Your task to perform on an android device: delete browsing data in the chrome app Image 0: 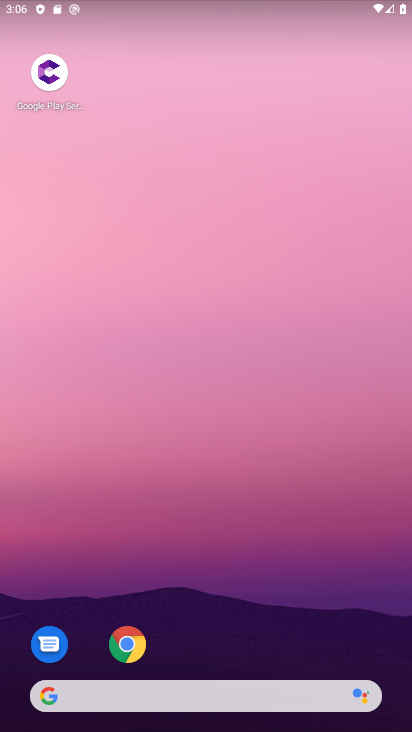
Step 0: click (126, 641)
Your task to perform on an android device: delete browsing data in the chrome app Image 1: 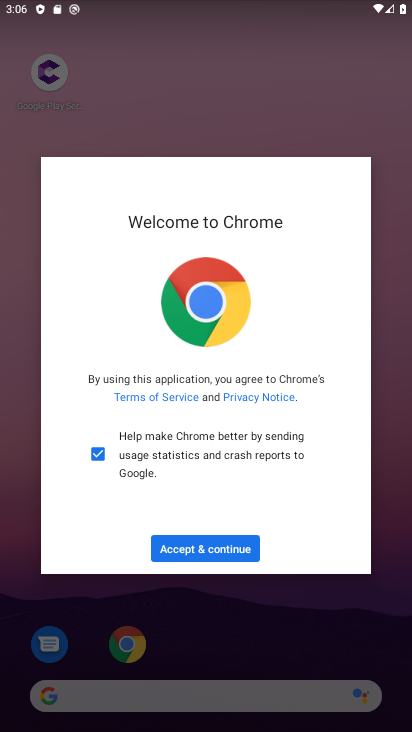
Step 1: click (194, 540)
Your task to perform on an android device: delete browsing data in the chrome app Image 2: 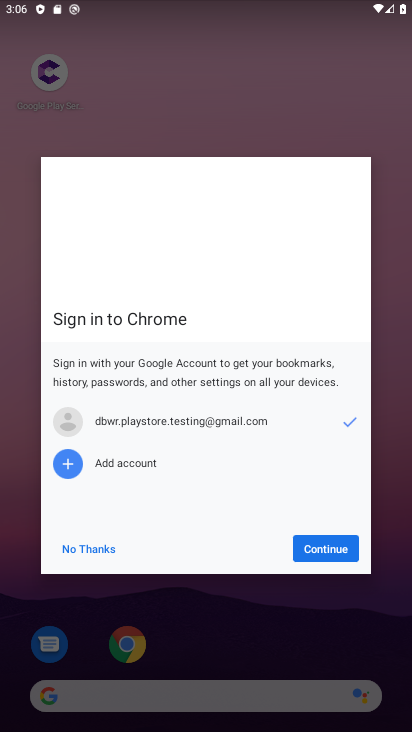
Step 2: click (319, 543)
Your task to perform on an android device: delete browsing data in the chrome app Image 3: 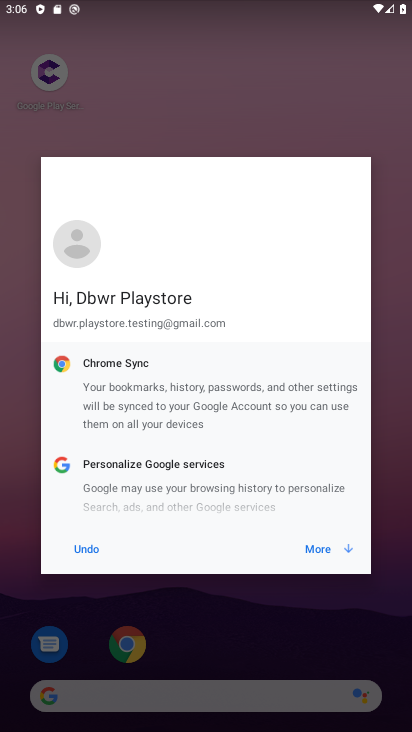
Step 3: click (319, 551)
Your task to perform on an android device: delete browsing data in the chrome app Image 4: 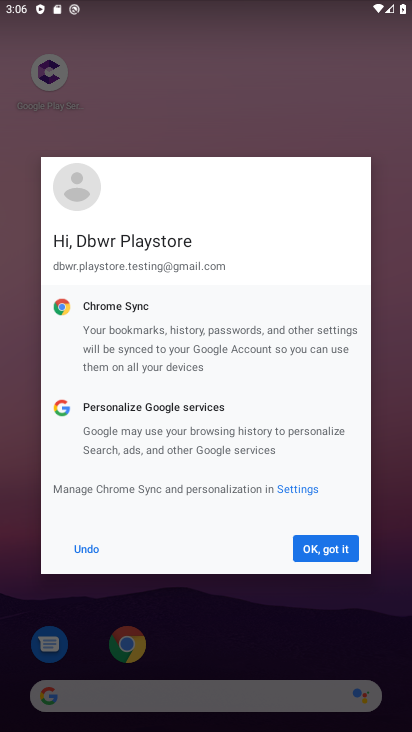
Step 4: click (319, 551)
Your task to perform on an android device: delete browsing data in the chrome app Image 5: 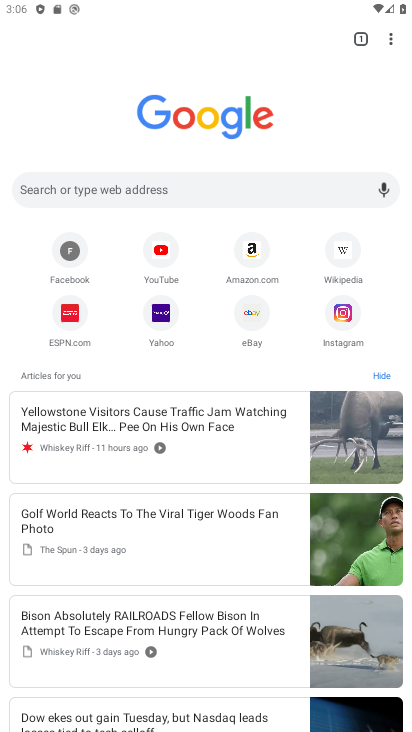
Step 5: click (390, 39)
Your task to perform on an android device: delete browsing data in the chrome app Image 6: 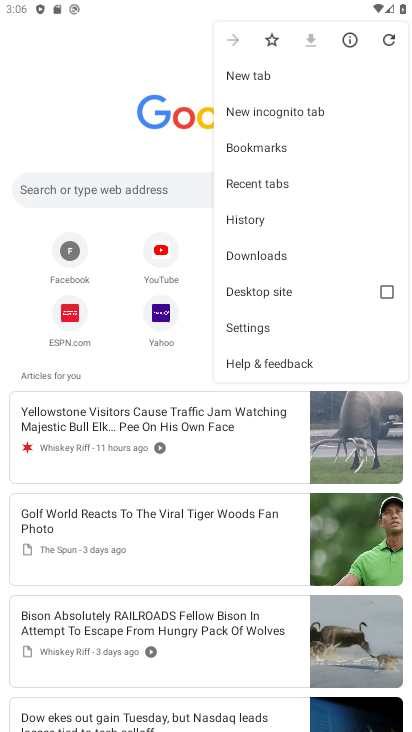
Step 6: click (244, 329)
Your task to perform on an android device: delete browsing data in the chrome app Image 7: 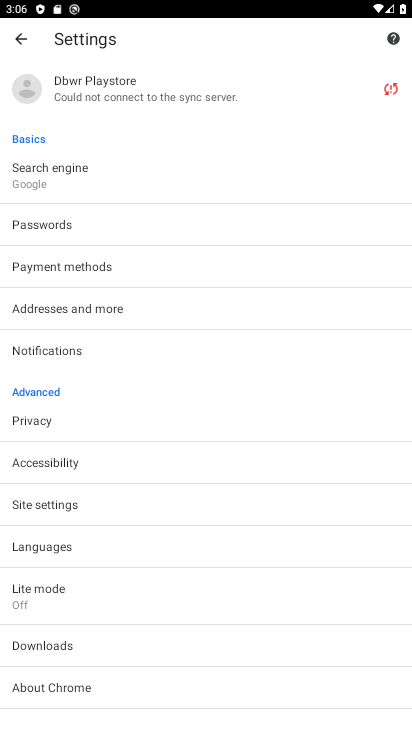
Step 7: click (34, 422)
Your task to perform on an android device: delete browsing data in the chrome app Image 8: 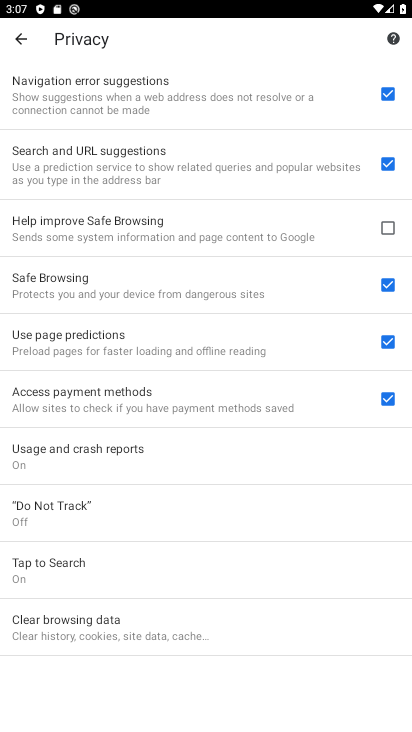
Step 8: click (66, 620)
Your task to perform on an android device: delete browsing data in the chrome app Image 9: 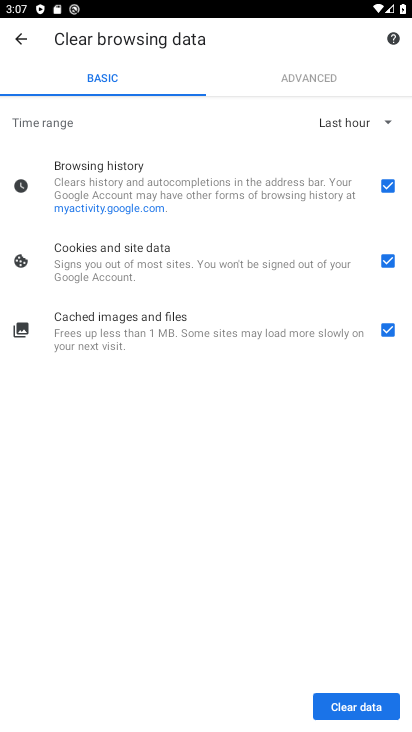
Step 9: click (382, 326)
Your task to perform on an android device: delete browsing data in the chrome app Image 10: 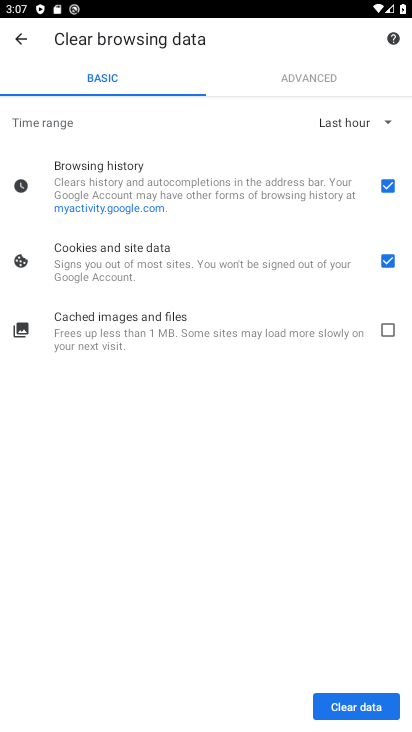
Step 10: click (385, 265)
Your task to perform on an android device: delete browsing data in the chrome app Image 11: 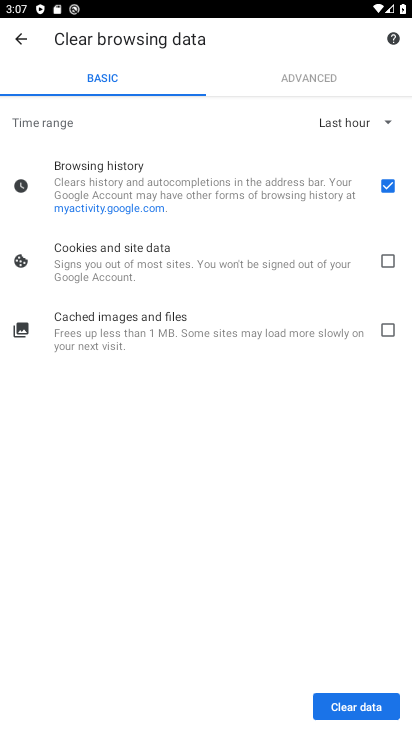
Step 11: click (354, 706)
Your task to perform on an android device: delete browsing data in the chrome app Image 12: 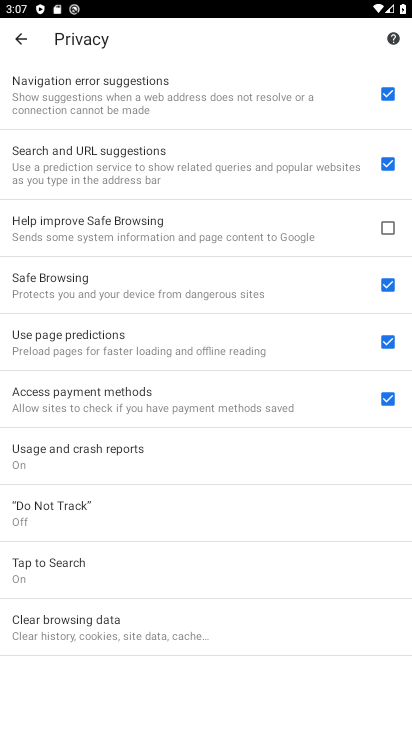
Step 12: task complete